Your task to perform on an android device: toggle javascript in the chrome app Image 0: 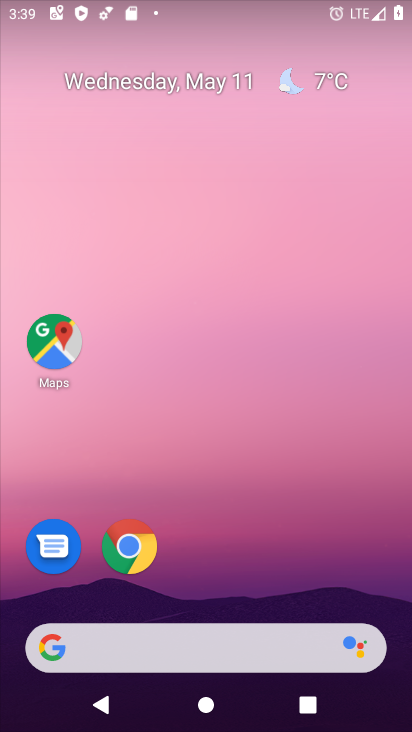
Step 0: drag from (234, 637) to (352, 3)
Your task to perform on an android device: toggle javascript in the chrome app Image 1: 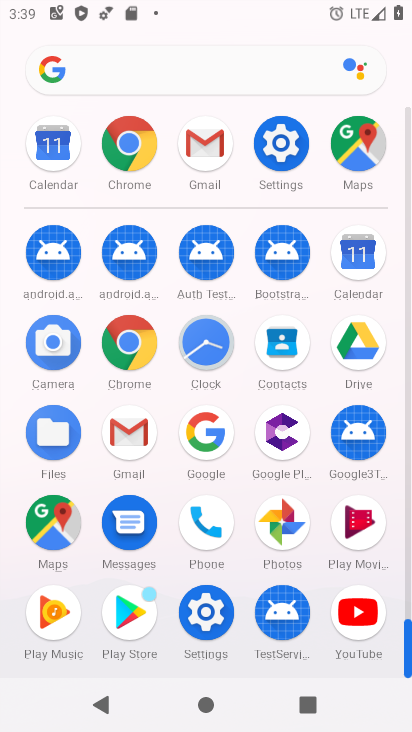
Step 1: click (145, 336)
Your task to perform on an android device: toggle javascript in the chrome app Image 2: 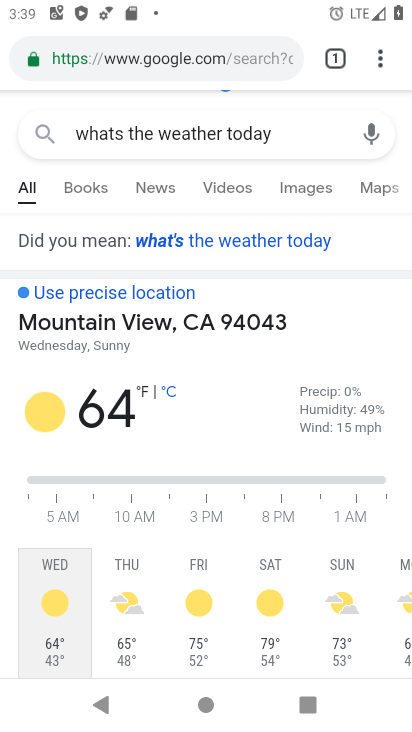
Step 2: click (263, 54)
Your task to perform on an android device: toggle javascript in the chrome app Image 3: 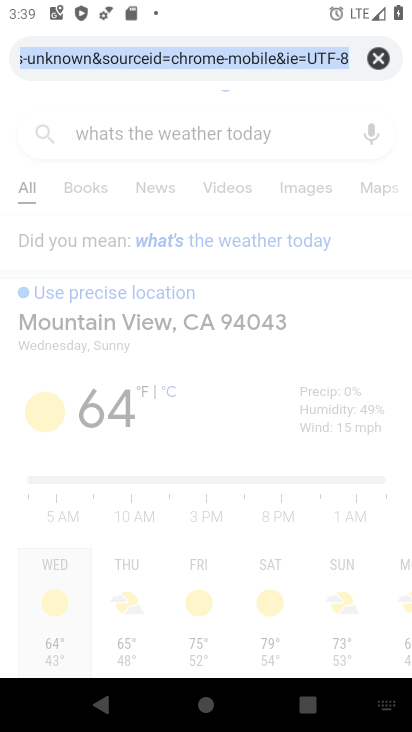
Step 3: click (374, 60)
Your task to perform on an android device: toggle javascript in the chrome app Image 4: 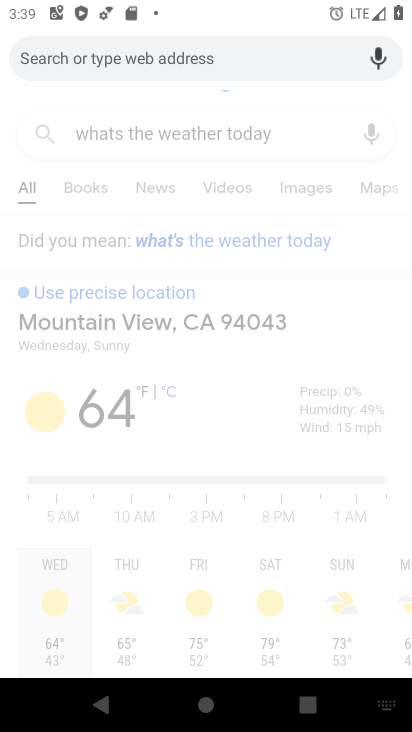
Step 4: press back button
Your task to perform on an android device: toggle javascript in the chrome app Image 5: 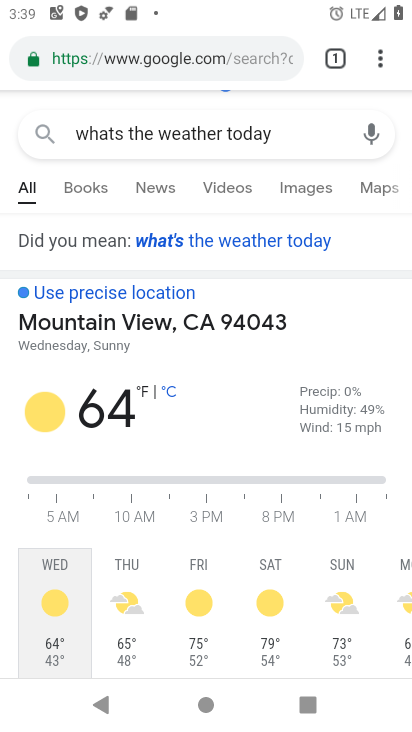
Step 5: click (378, 52)
Your task to perform on an android device: toggle javascript in the chrome app Image 6: 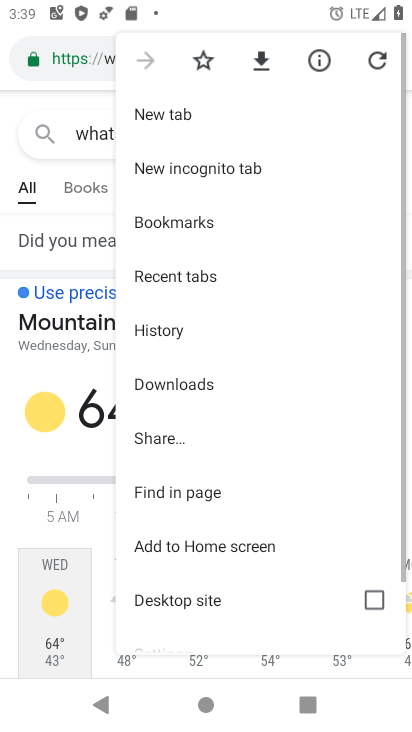
Step 6: drag from (211, 586) to (250, 204)
Your task to perform on an android device: toggle javascript in the chrome app Image 7: 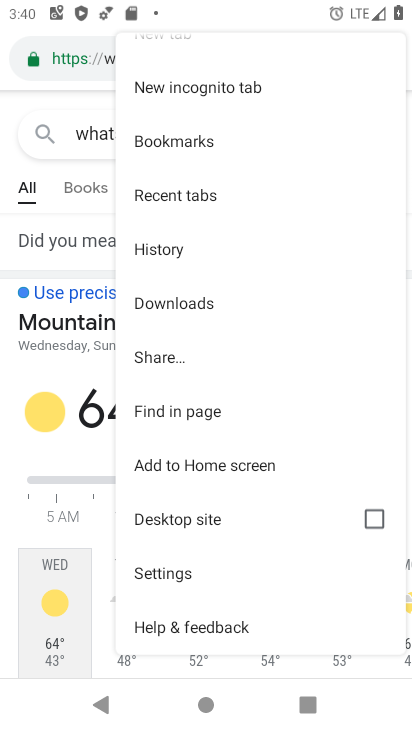
Step 7: click (159, 580)
Your task to perform on an android device: toggle javascript in the chrome app Image 8: 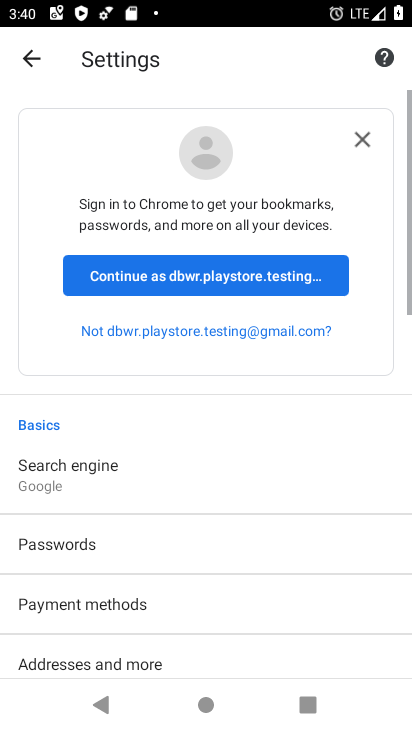
Step 8: drag from (175, 628) to (232, 45)
Your task to perform on an android device: toggle javascript in the chrome app Image 9: 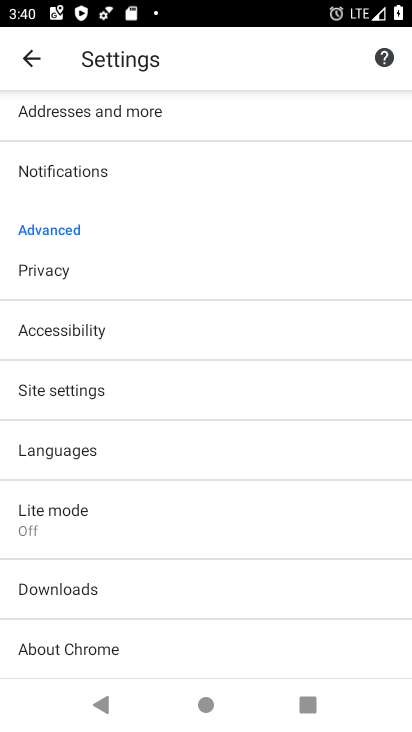
Step 9: click (83, 386)
Your task to perform on an android device: toggle javascript in the chrome app Image 10: 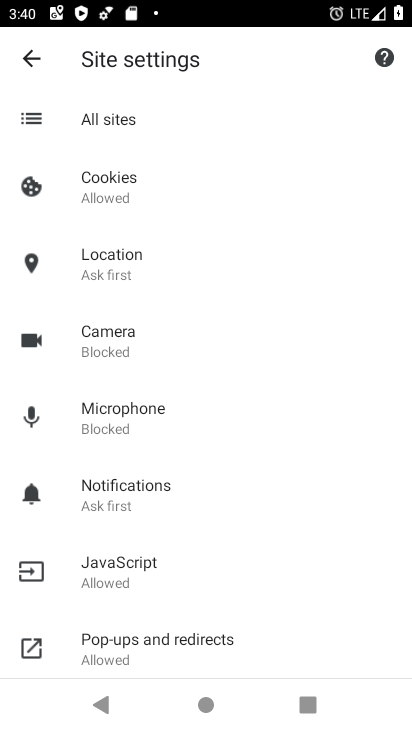
Step 10: click (132, 591)
Your task to perform on an android device: toggle javascript in the chrome app Image 11: 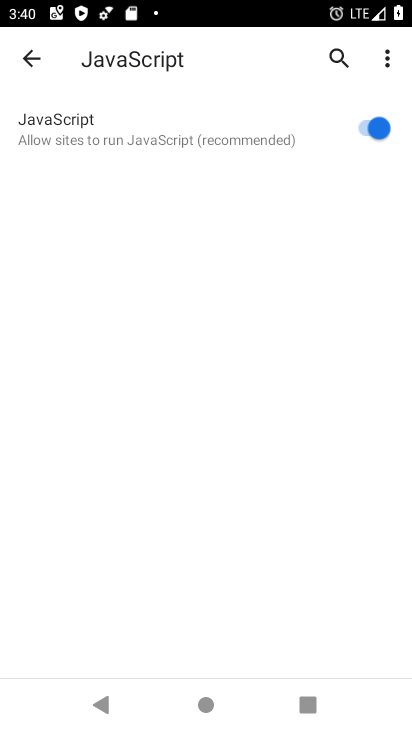
Step 11: click (362, 131)
Your task to perform on an android device: toggle javascript in the chrome app Image 12: 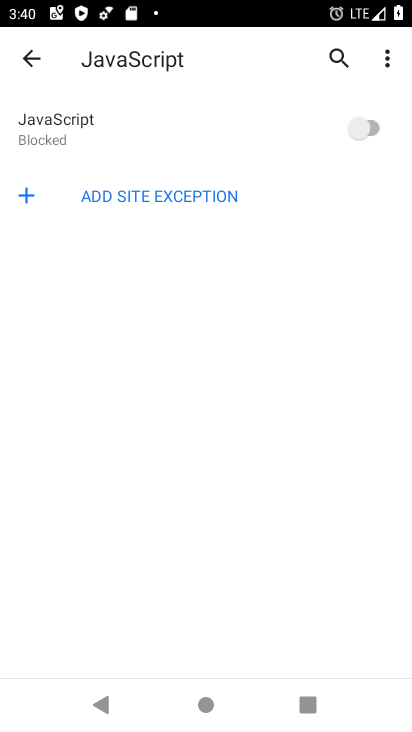
Step 12: task complete